Your task to perform on an android device: turn off priority inbox in the gmail app Image 0: 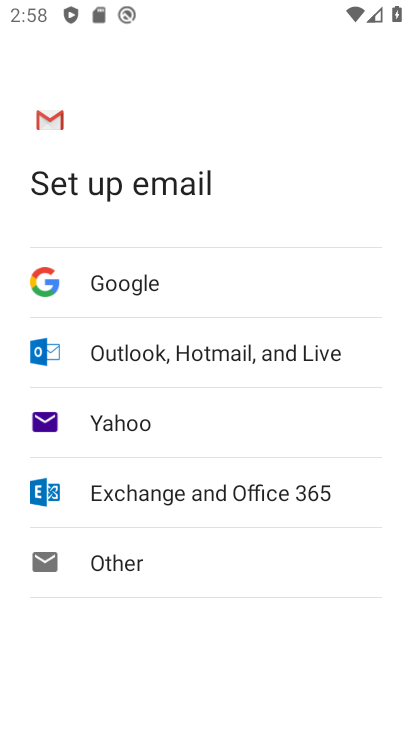
Step 0: press home button
Your task to perform on an android device: turn off priority inbox in the gmail app Image 1: 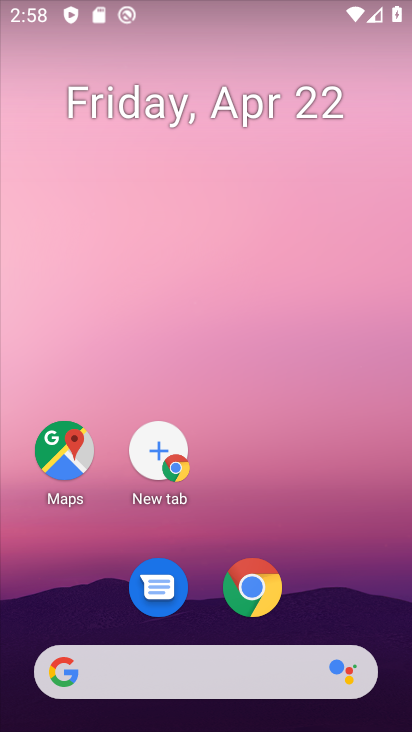
Step 1: drag from (233, 538) to (260, 51)
Your task to perform on an android device: turn off priority inbox in the gmail app Image 2: 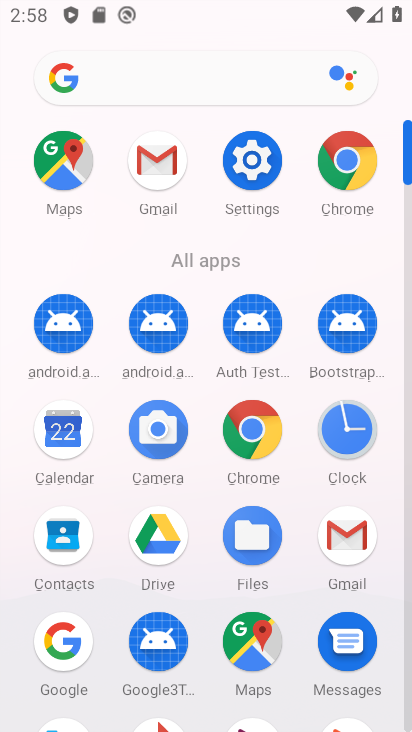
Step 2: click (160, 160)
Your task to perform on an android device: turn off priority inbox in the gmail app Image 3: 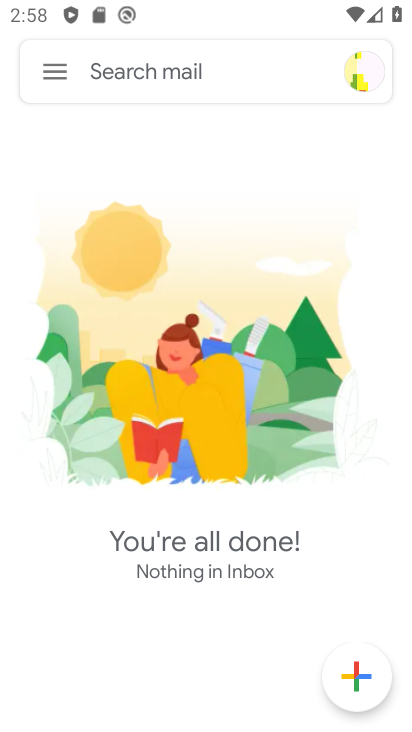
Step 3: click (51, 69)
Your task to perform on an android device: turn off priority inbox in the gmail app Image 4: 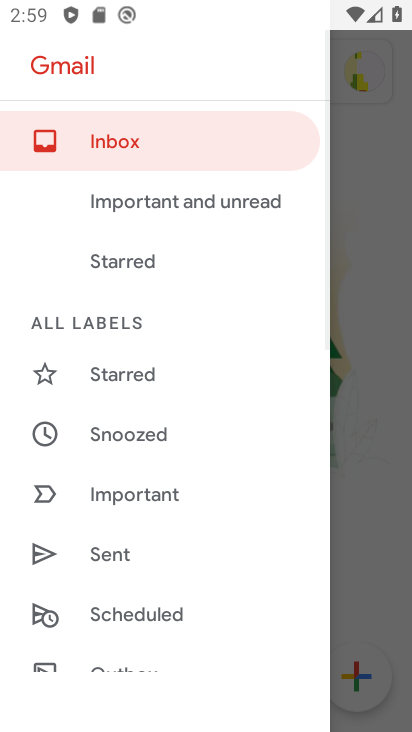
Step 4: drag from (120, 603) to (128, 229)
Your task to perform on an android device: turn off priority inbox in the gmail app Image 5: 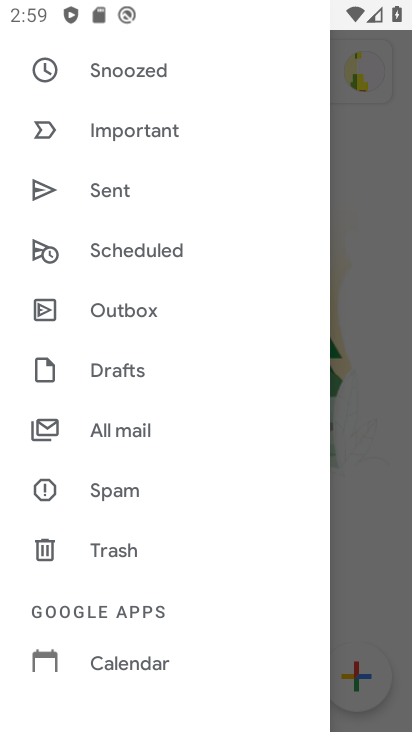
Step 5: drag from (106, 536) to (139, 127)
Your task to perform on an android device: turn off priority inbox in the gmail app Image 6: 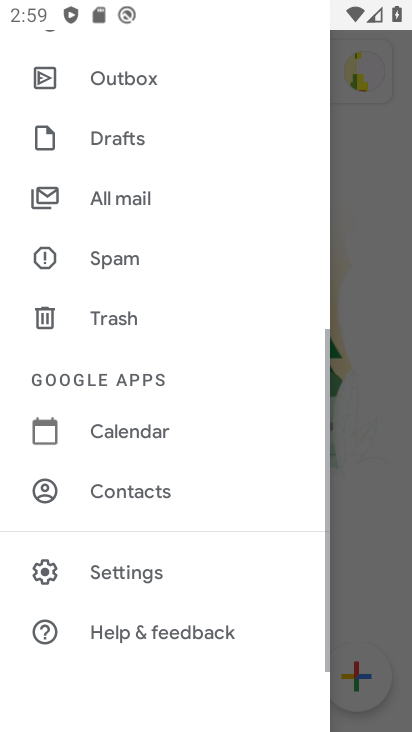
Step 6: click (87, 568)
Your task to perform on an android device: turn off priority inbox in the gmail app Image 7: 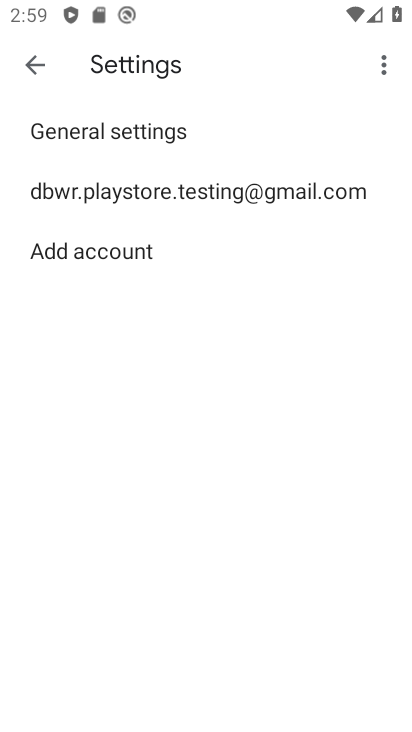
Step 7: click (132, 207)
Your task to perform on an android device: turn off priority inbox in the gmail app Image 8: 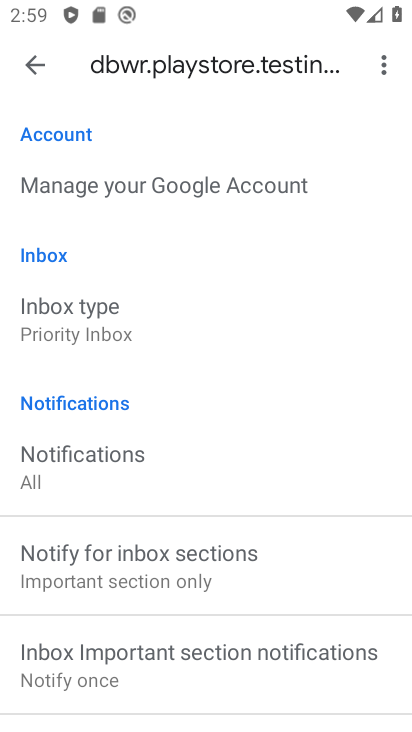
Step 8: click (98, 356)
Your task to perform on an android device: turn off priority inbox in the gmail app Image 9: 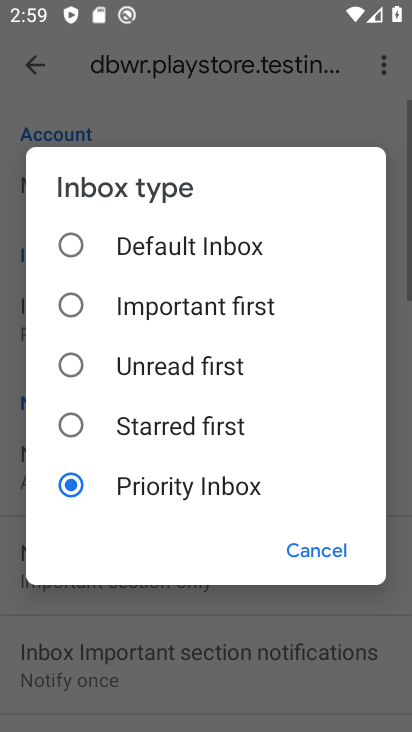
Step 9: click (120, 371)
Your task to perform on an android device: turn off priority inbox in the gmail app Image 10: 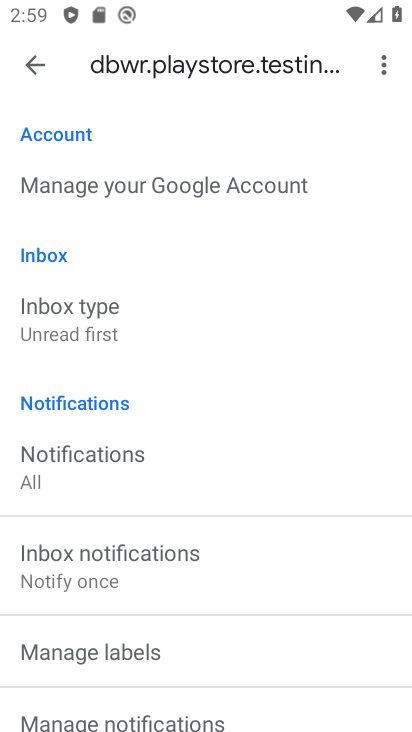
Step 10: task complete